Your task to perform on an android device: check storage Image 0: 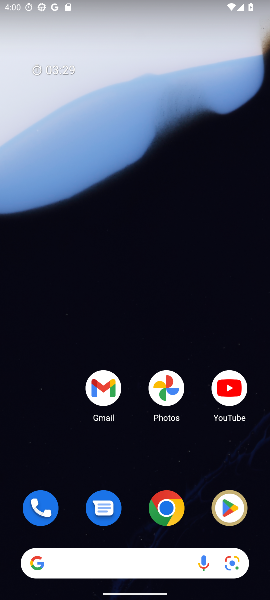
Step 0: drag from (138, 490) to (169, 169)
Your task to perform on an android device: check storage Image 1: 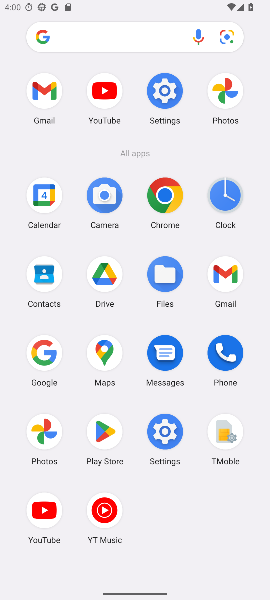
Step 1: click (173, 430)
Your task to perform on an android device: check storage Image 2: 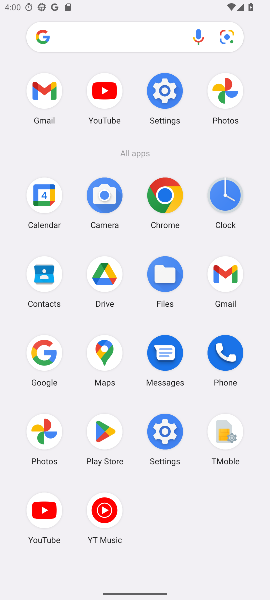
Step 2: click (173, 430)
Your task to perform on an android device: check storage Image 3: 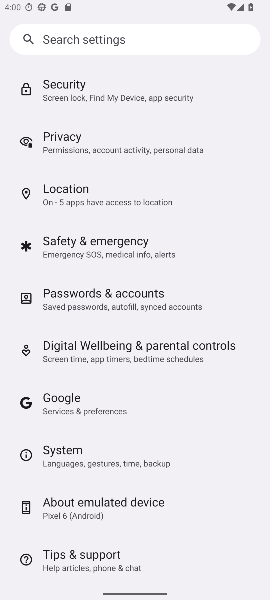
Step 3: drag from (109, 537) to (149, 80)
Your task to perform on an android device: check storage Image 4: 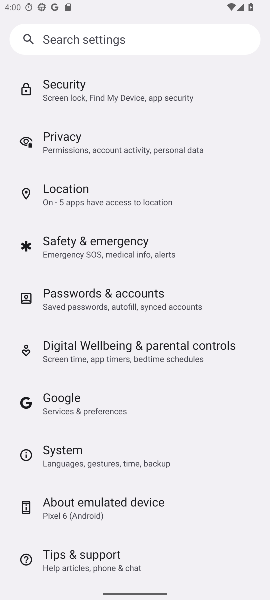
Step 4: drag from (152, 86) to (146, 594)
Your task to perform on an android device: check storage Image 5: 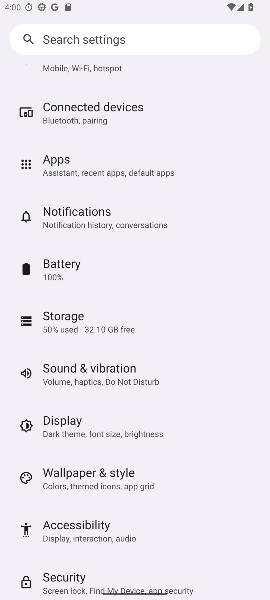
Step 5: click (72, 321)
Your task to perform on an android device: check storage Image 6: 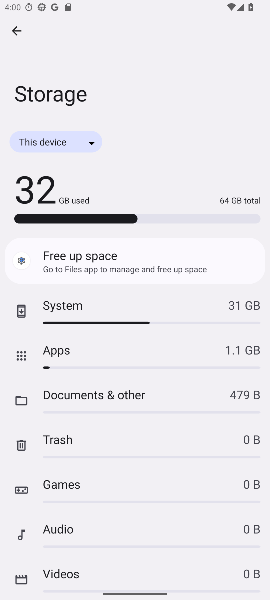
Step 6: task complete